Your task to perform on an android device: show emergency info Image 0: 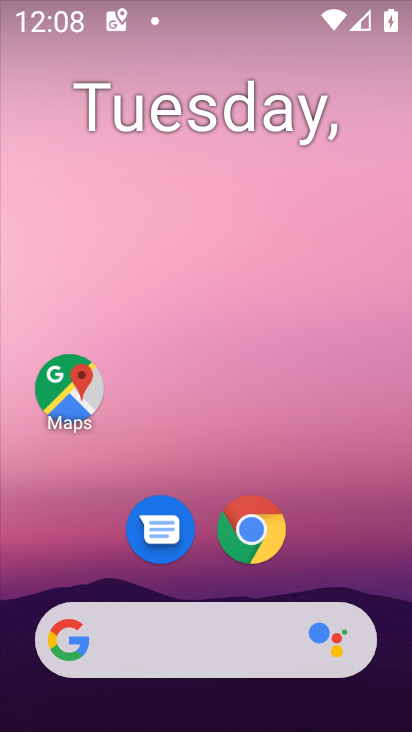
Step 0: drag from (177, 594) to (236, 32)
Your task to perform on an android device: show emergency info Image 1: 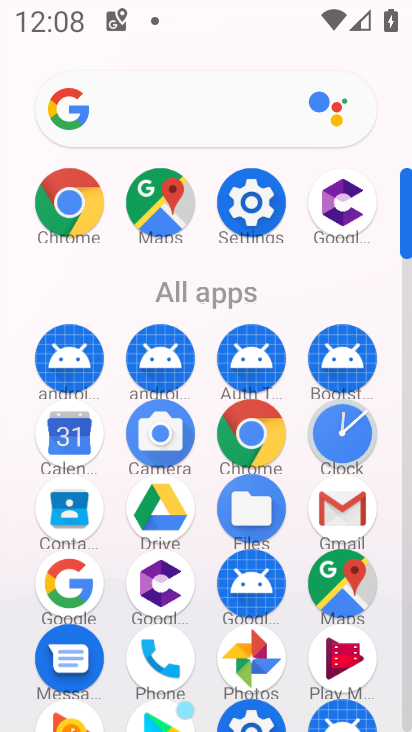
Step 1: click (253, 200)
Your task to perform on an android device: show emergency info Image 2: 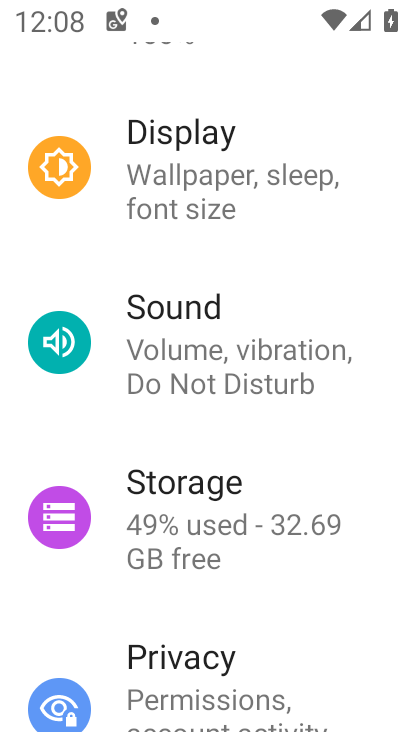
Step 2: drag from (140, 620) to (260, 69)
Your task to perform on an android device: show emergency info Image 3: 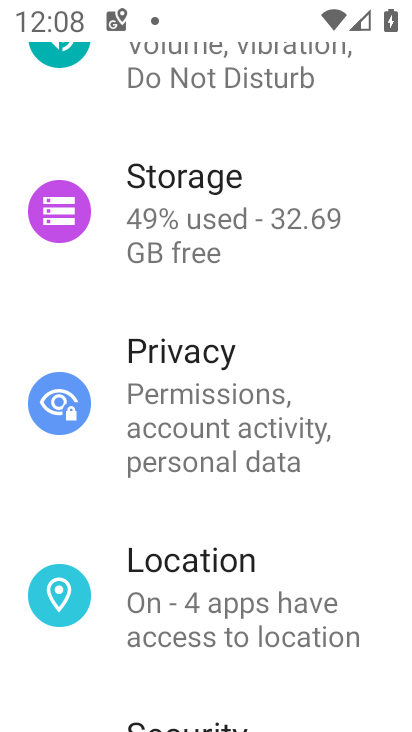
Step 3: drag from (215, 638) to (264, 56)
Your task to perform on an android device: show emergency info Image 4: 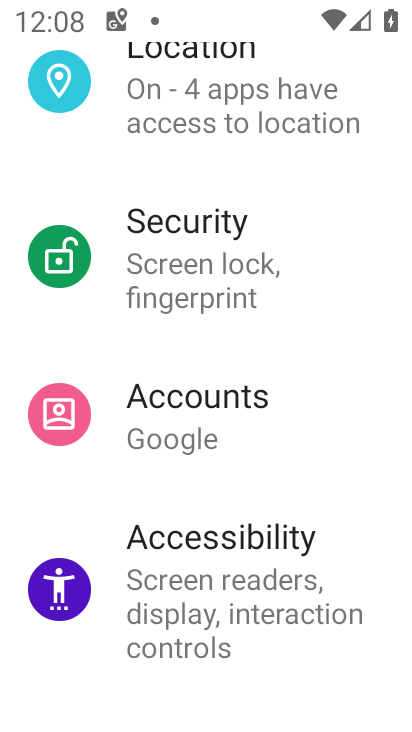
Step 4: drag from (197, 564) to (250, 29)
Your task to perform on an android device: show emergency info Image 5: 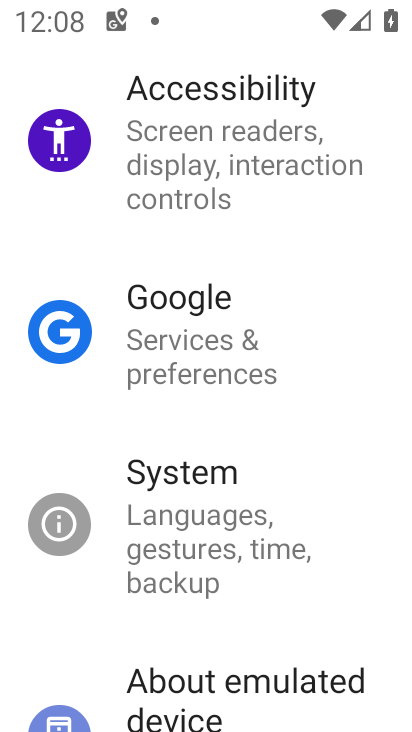
Step 5: drag from (192, 659) to (289, 27)
Your task to perform on an android device: show emergency info Image 6: 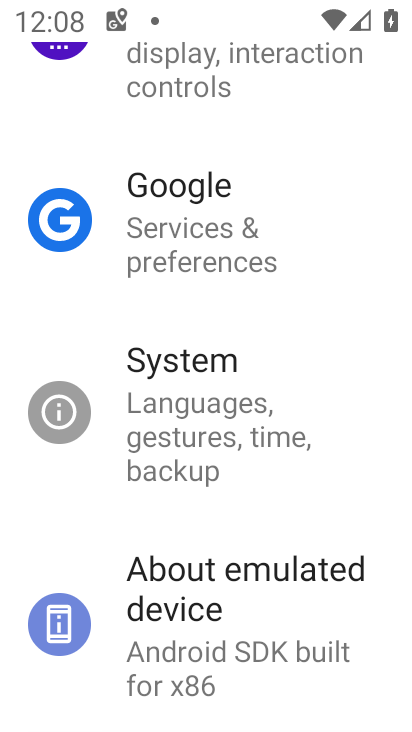
Step 6: drag from (200, 593) to (229, 122)
Your task to perform on an android device: show emergency info Image 7: 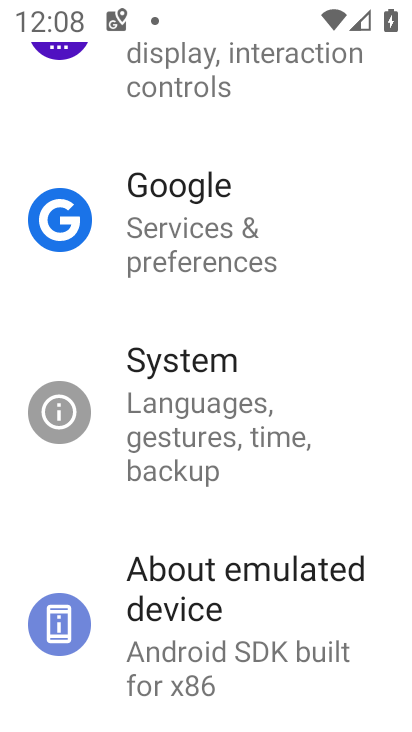
Step 7: click (195, 659)
Your task to perform on an android device: show emergency info Image 8: 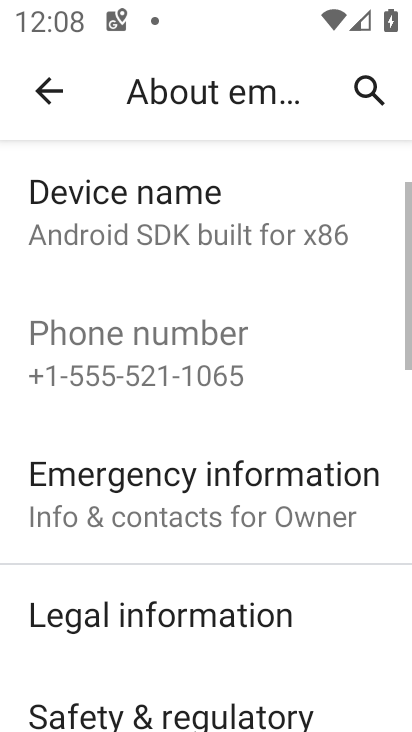
Step 8: click (150, 476)
Your task to perform on an android device: show emergency info Image 9: 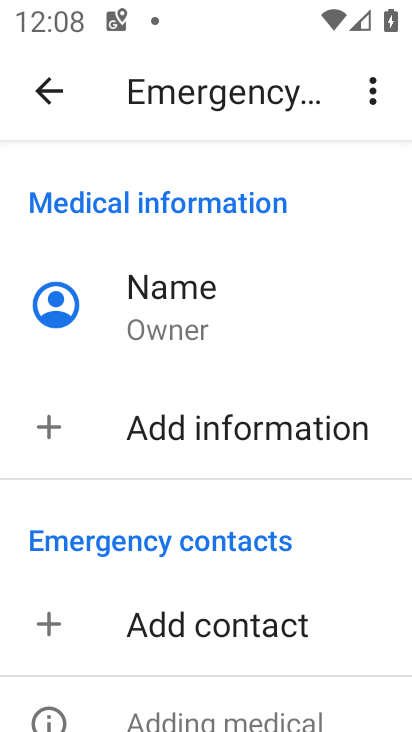
Step 9: task complete